Your task to perform on an android device: Open Amazon Image 0: 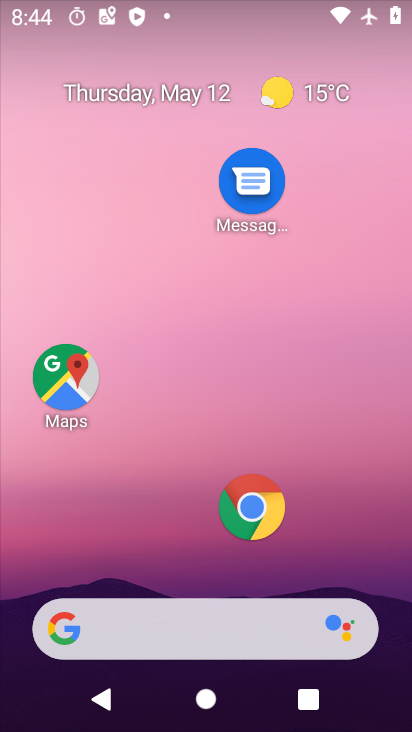
Step 0: drag from (350, 568) to (363, 24)
Your task to perform on an android device: Open Amazon Image 1: 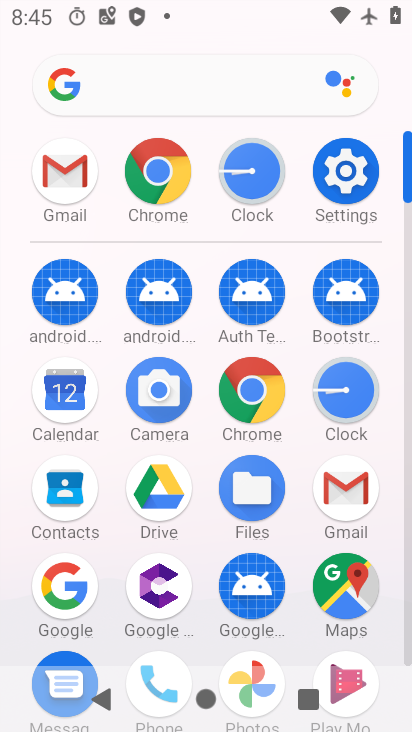
Step 1: click (149, 176)
Your task to perform on an android device: Open Amazon Image 2: 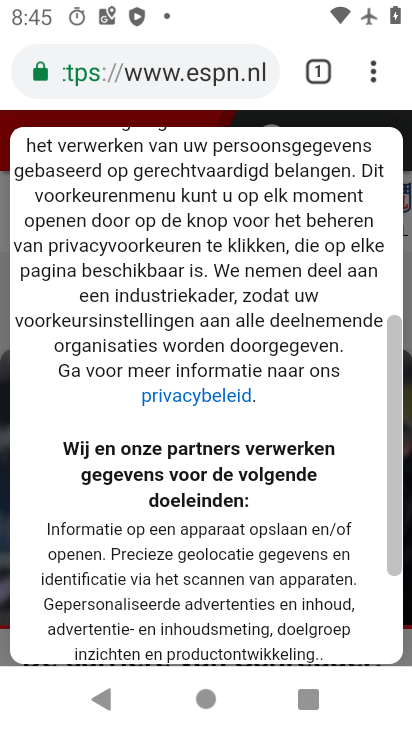
Step 2: click (133, 80)
Your task to perform on an android device: Open Amazon Image 3: 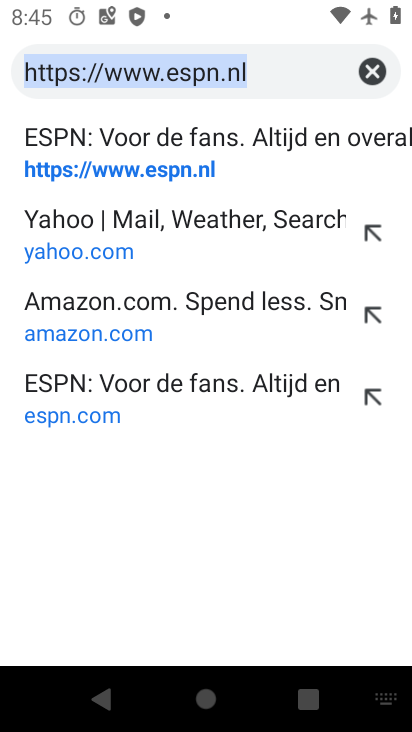
Step 3: type "amazon"
Your task to perform on an android device: Open Amazon Image 4: 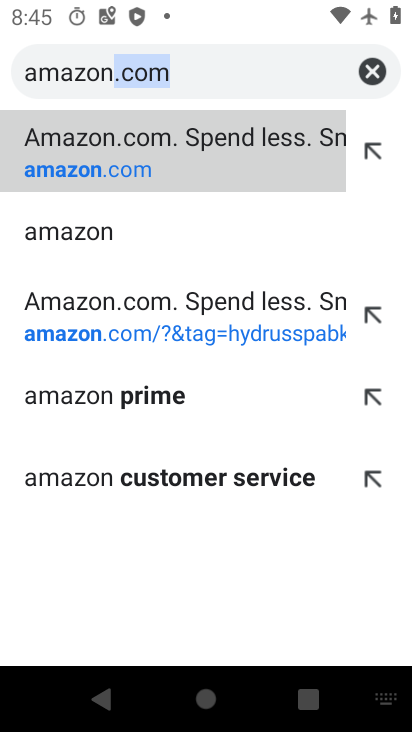
Step 4: click (140, 163)
Your task to perform on an android device: Open Amazon Image 5: 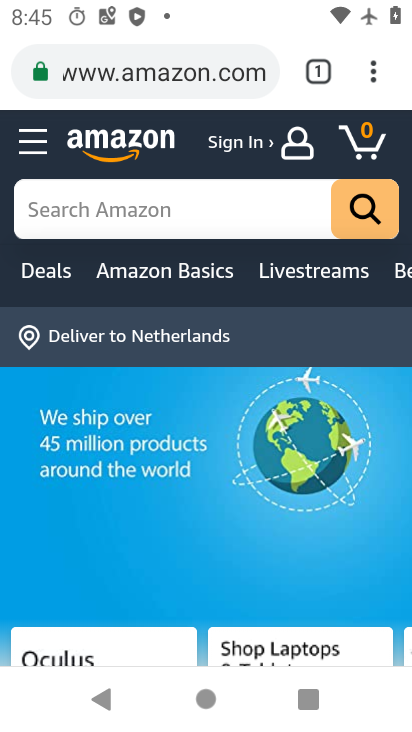
Step 5: task complete